Your task to perform on an android device: Open accessibility settings Image 0: 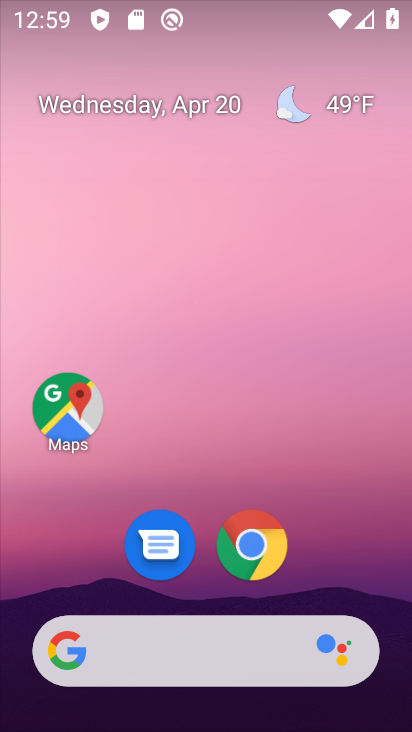
Step 0: drag from (203, 610) to (316, 31)
Your task to perform on an android device: Open accessibility settings Image 1: 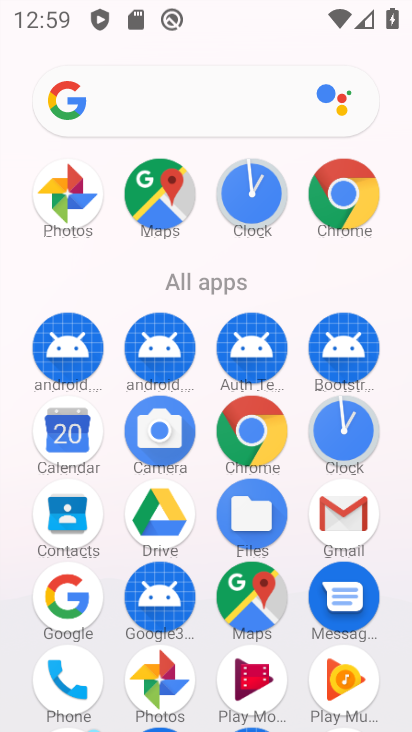
Step 1: drag from (169, 662) to (239, 434)
Your task to perform on an android device: Open accessibility settings Image 2: 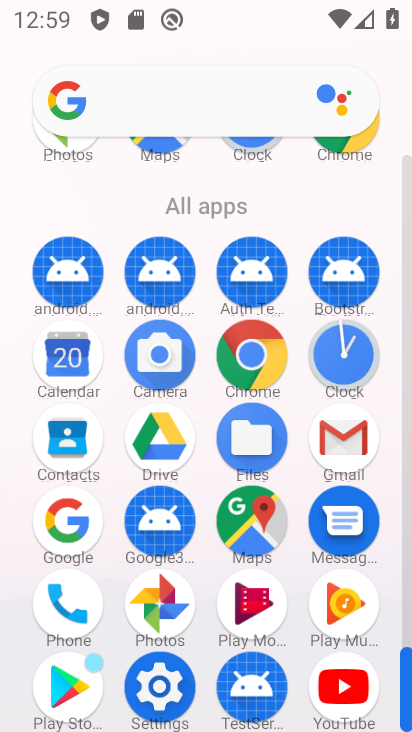
Step 2: click (164, 684)
Your task to perform on an android device: Open accessibility settings Image 3: 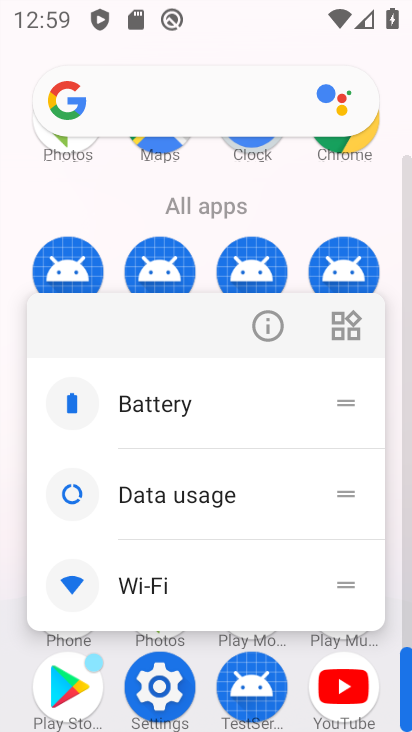
Step 3: click (164, 683)
Your task to perform on an android device: Open accessibility settings Image 4: 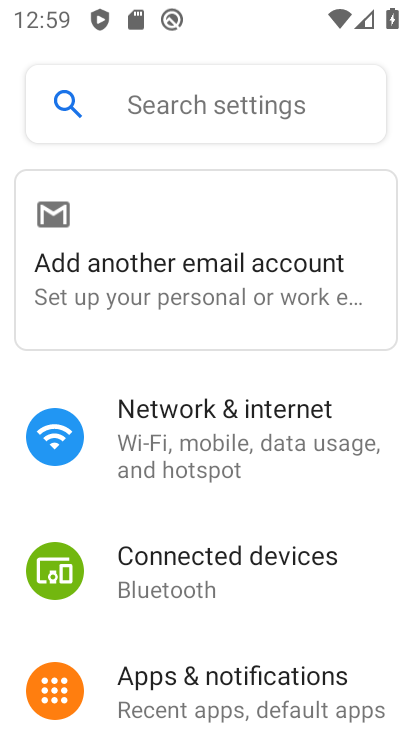
Step 4: drag from (191, 669) to (309, 206)
Your task to perform on an android device: Open accessibility settings Image 5: 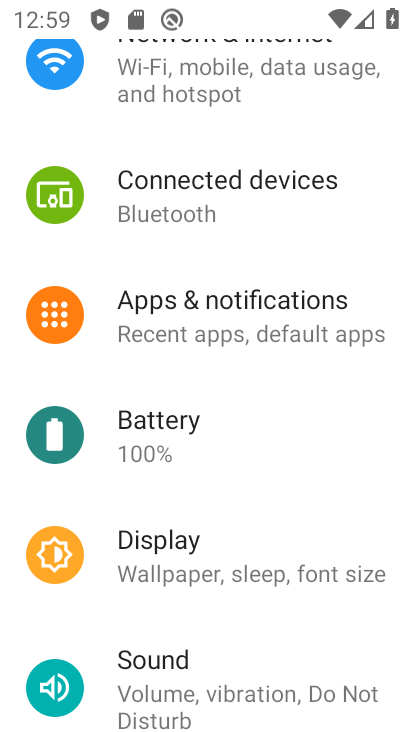
Step 5: drag from (213, 615) to (326, 127)
Your task to perform on an android device: Open accessibility settings Image 6: 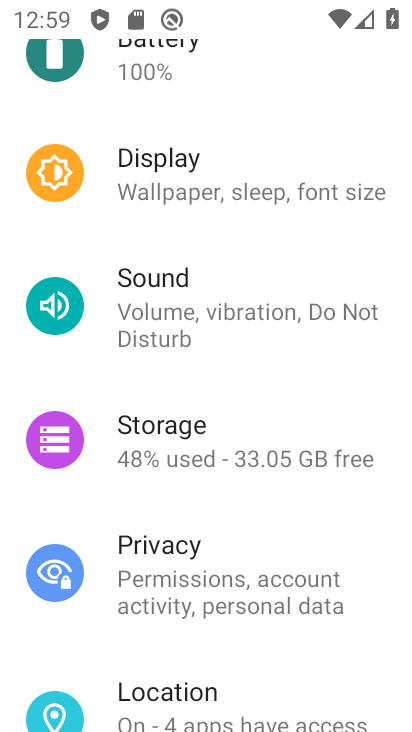
Step 6: drag from (188, 688) to (341, 192)
Your task to perform on an android device: Open accessibility settings Image 7: 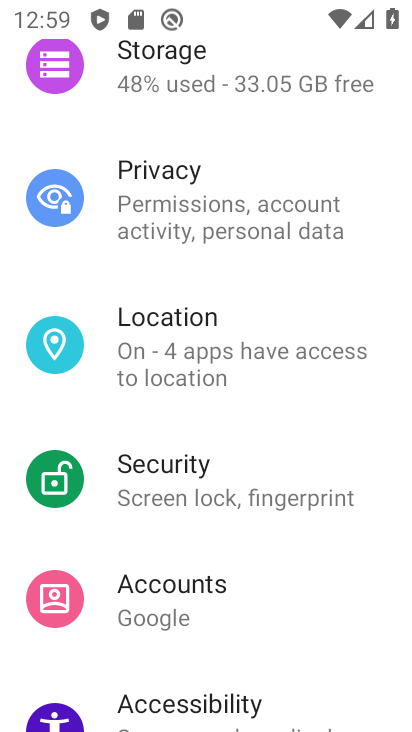
Step 7: drag from (178, 690) to (264, 409)
Your task to perform on an android device: Open accessibility settings Image 8: 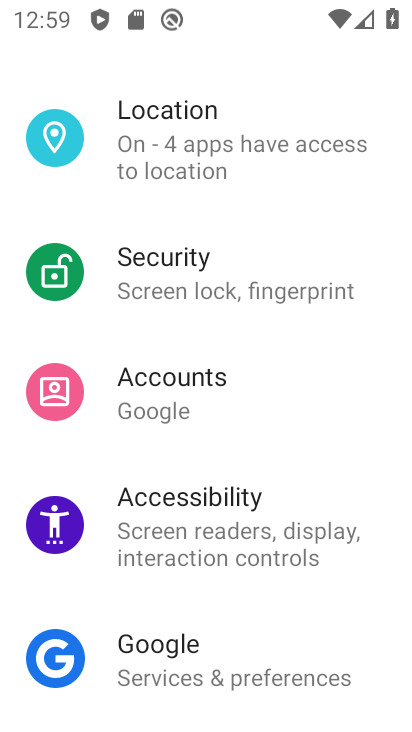
Step 8: click (219, 525)
Your task to perform on an android device: Open accessibility settings Image 9: 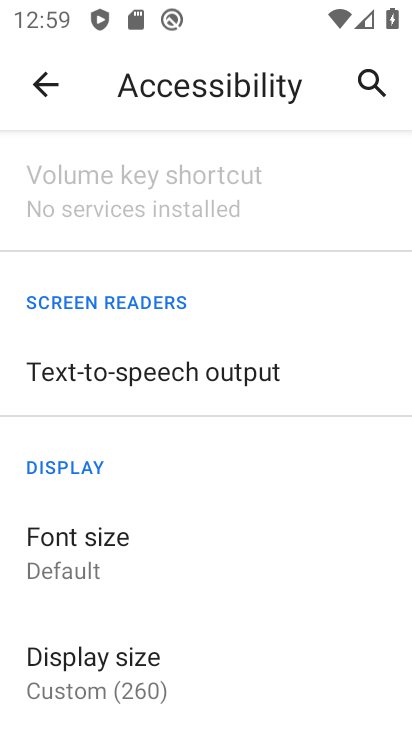
Step 9: task complete